Your task to perform on an android device: Go to Wikipedia Image 0: 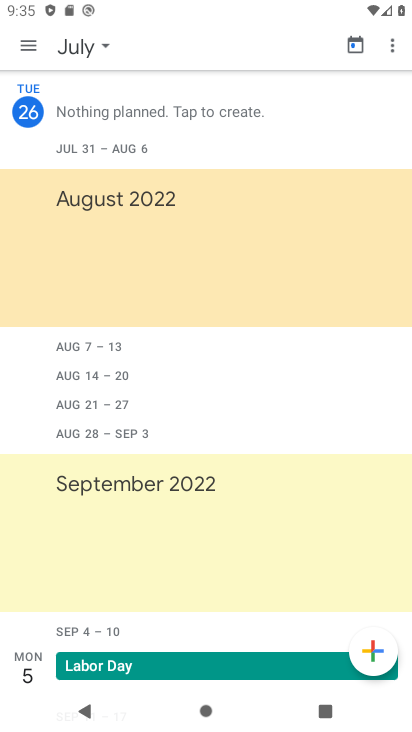
Step 0: press back button
Your task to perform on an android device: Go to Wikipedia Image 1: 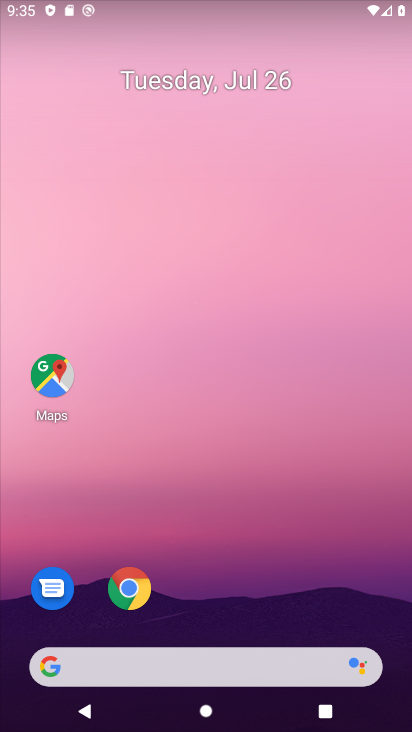
Step 1: click (134, 588)
Your task to perform on an android device: Go to Wikipedia Image 2: 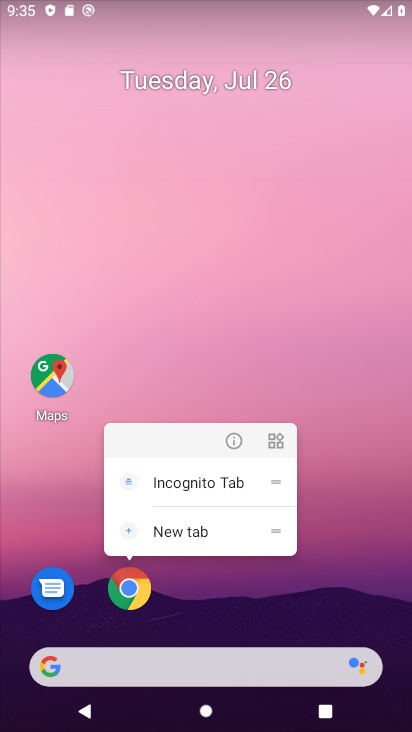
Step 2: click (122, 589)
Your task to perform on an android device: Go to Wikipedia Image 3: 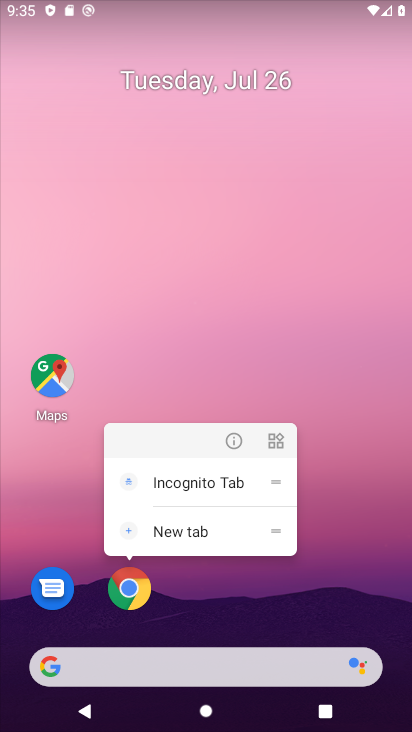
Step 3: click (134, 587)
Your task to perform on an android device: Go to Wikipedia Image 4: 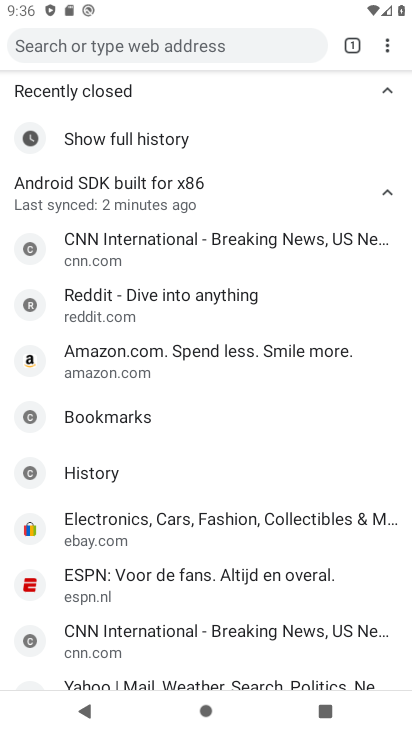
Step 4: click (350, 40)
Your task to perform on an android device: Go to Wikipedia Image 5: 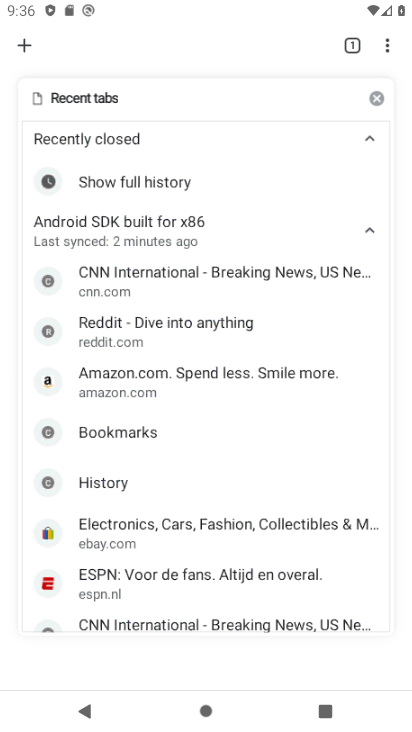
Step 5: click (21, 41)
Your task to perform on an android device: Go to Wikipedia Image 6: 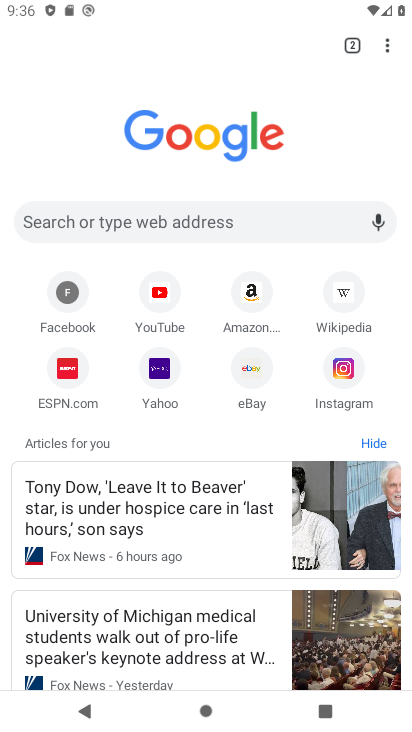
Step 6: click (334, 277)
Your task to perform on an android device: Go to Wikipedia Image 7: 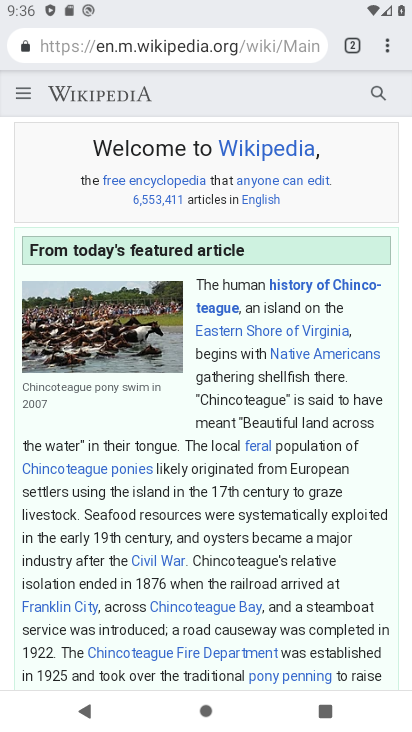
Step 7: task complete